Your task to perform on an android device: Go to Google maps Image 0: 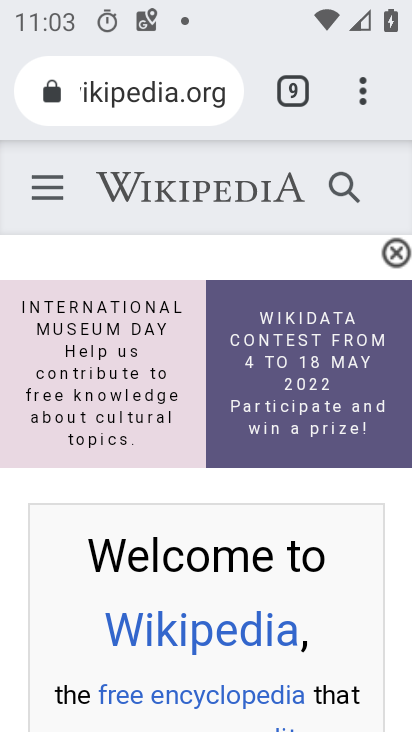
Step 0: press home button
Your task to perform on an android device: Go to Google maps Image 1: 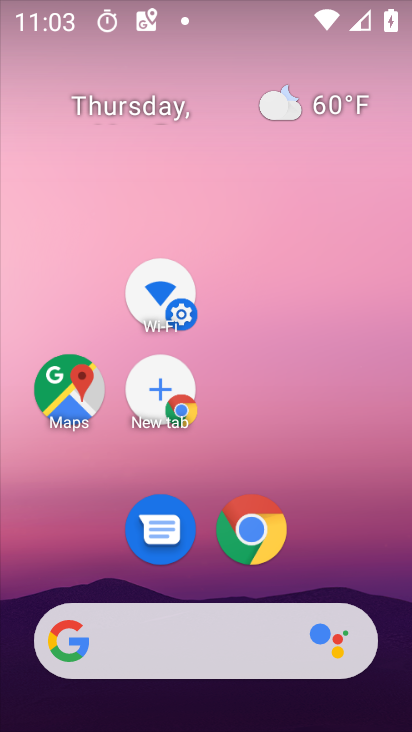
Step 1: click (73, 395)
Your task to perform on an android device: Go to Google maps Image 2: 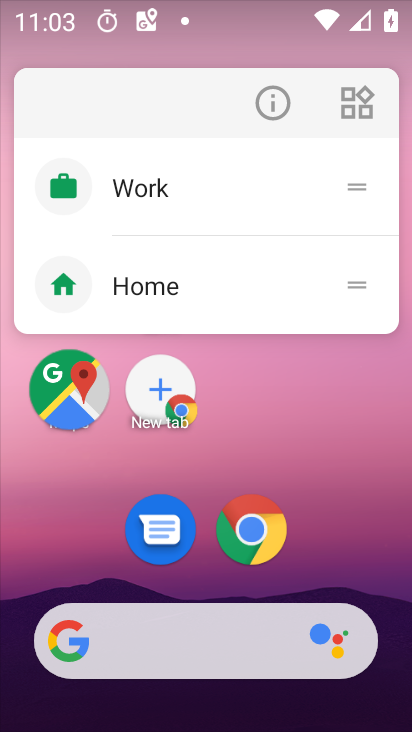
Step 2: click (73, 395)
Your task to perform on an android device: Go to Google maps Image 3: 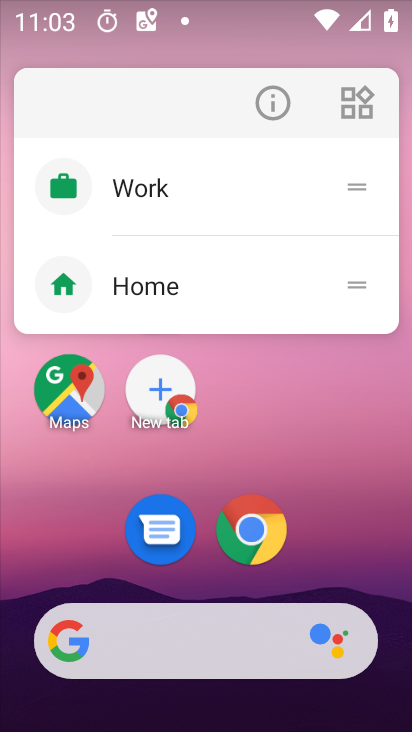
Step 3: click (73, 395)
Your task to perform on an android device: Go to Google maps Image 4: 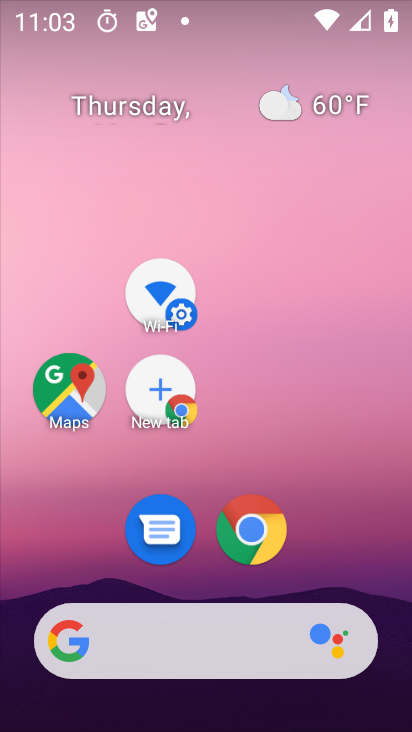
Step 4: click (73, 395)
Your task to perform on an android device: Go to Google maps Image 5: 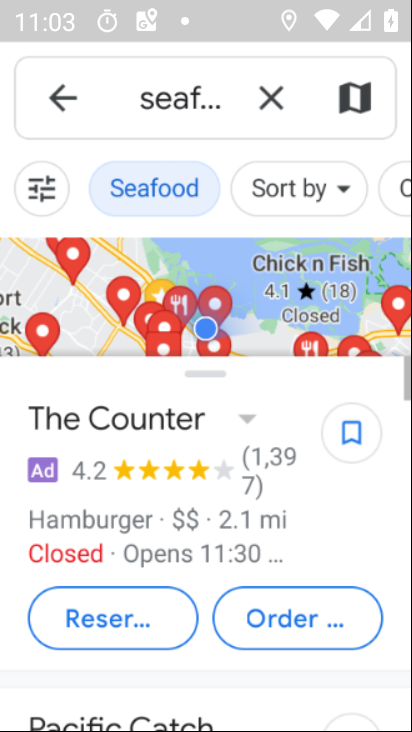
Step 5: task complete